Your task to perform on an android device: turn off priority inbox in the gmail app Image 0: 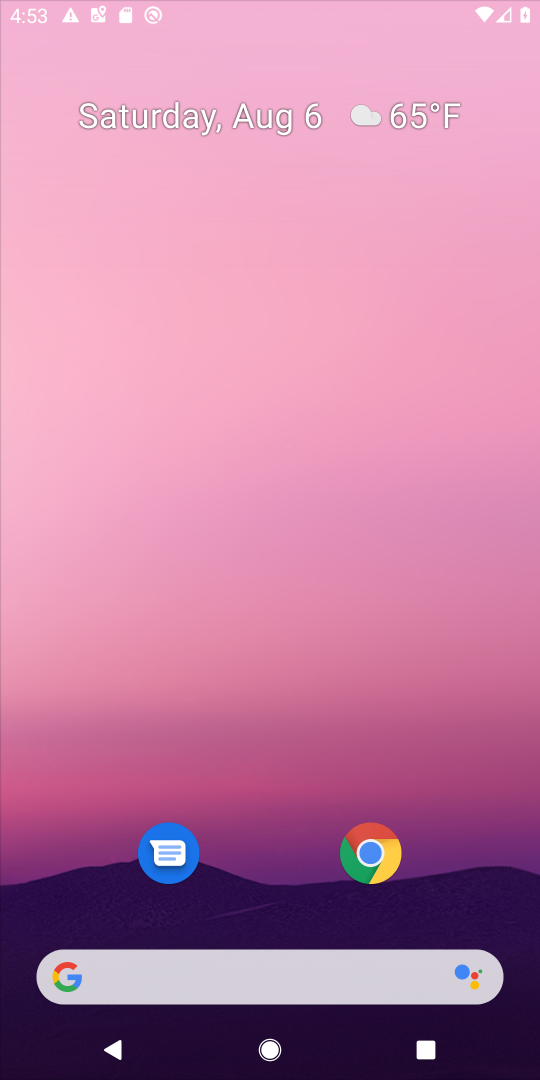
Step 0: press back button
Your task to perform on an android device: turn off priority inbox in the gmail app Image 1: 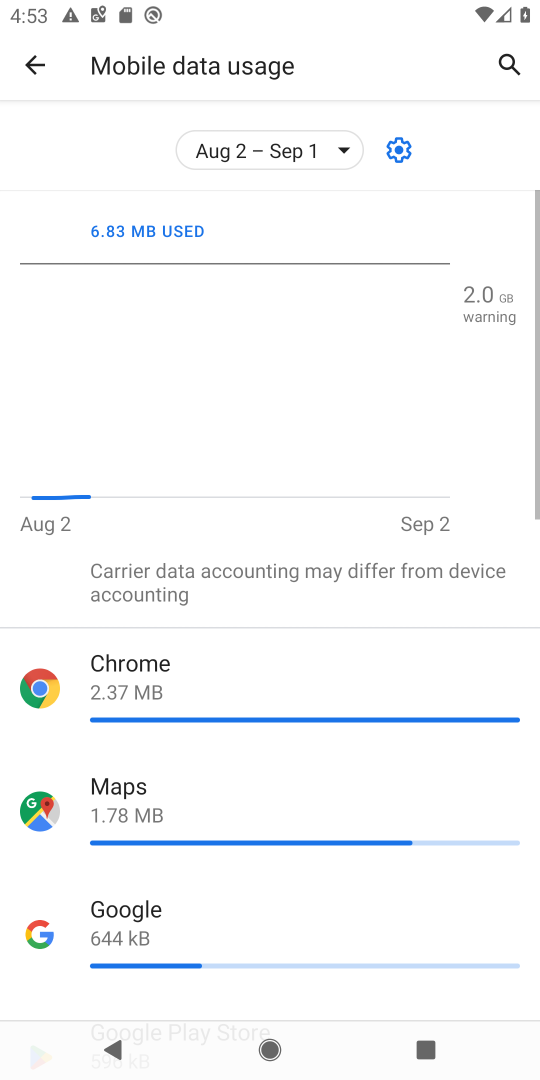
Step 1: press back button
Your task to perform on an android device: turn off priority inbox in the gmail app Image 2: 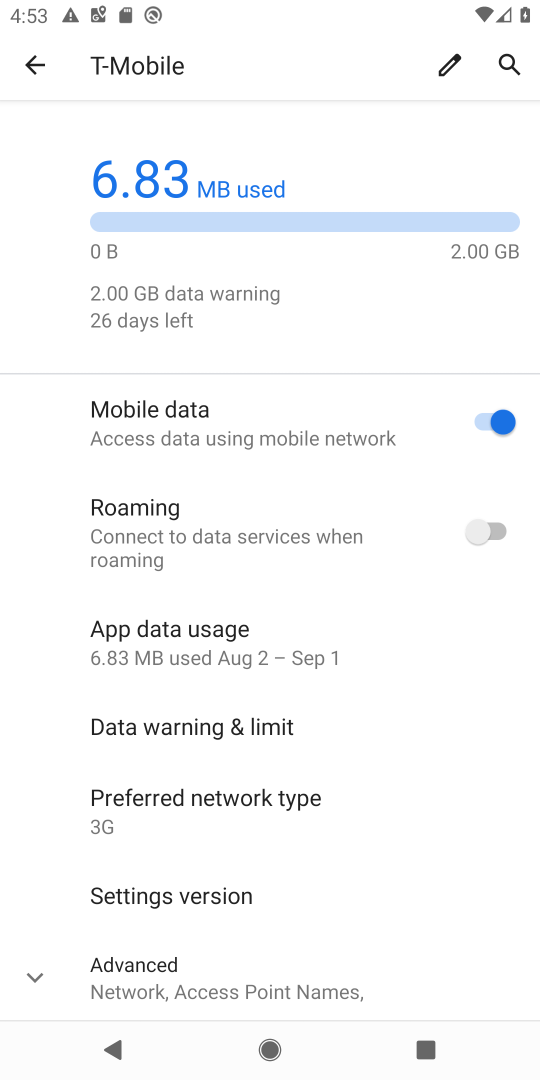
Step 2: press back button
Your task to perform on an android device: turn off priority inbox in the gmail app Image 3: 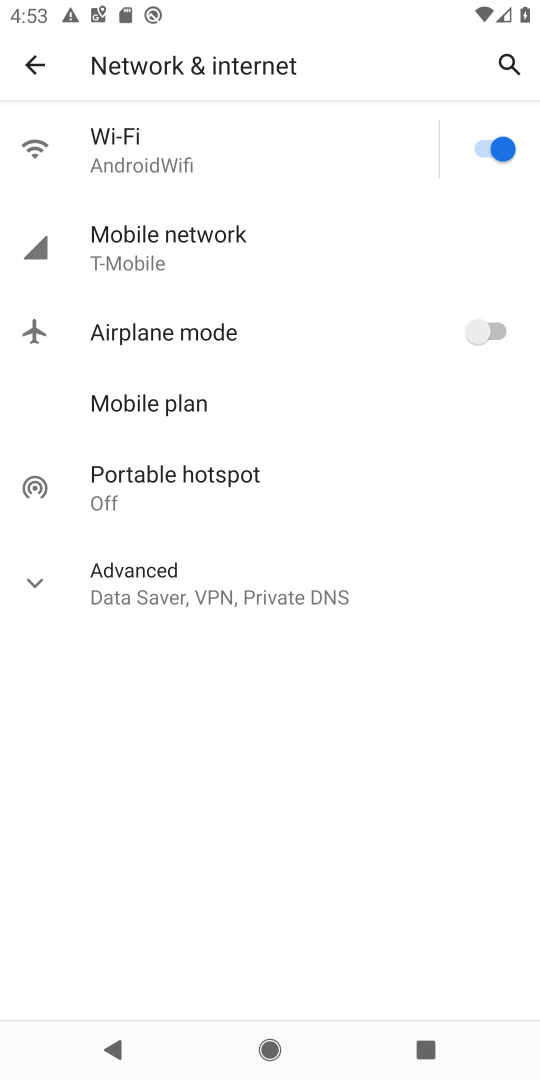
Step 3: press home button
Your task to perform on an android device: turn off priority inbox in the gmail app Image 4: 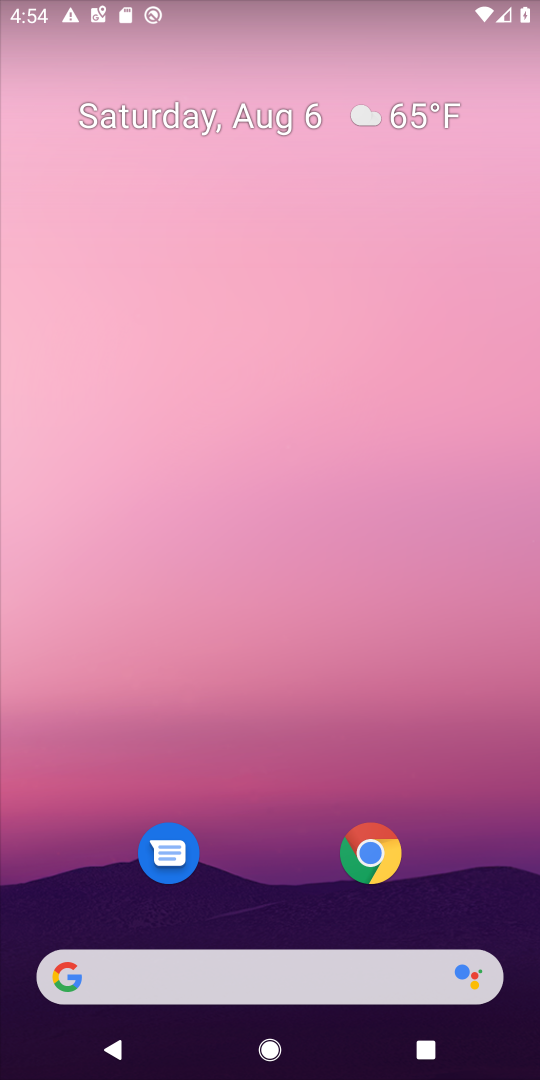
Step 4: drag from (261, 825) to (384, 29)
Your task to perform on an android device: turn off priority inbox in the gmail app Image 5: 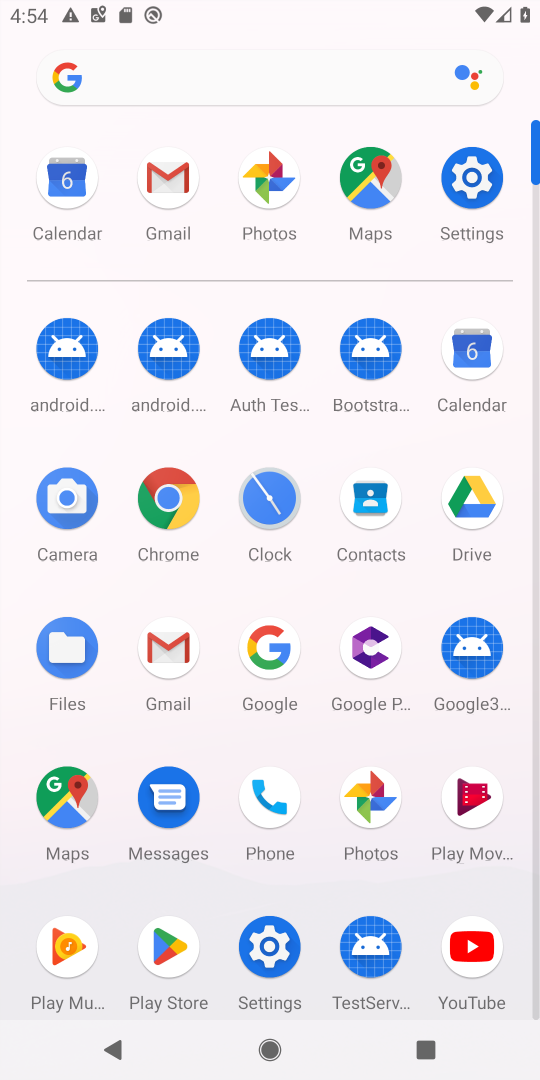
Step 5: click (156, 181)
Your task to perform on an android device: turn off priority inbox in the gmail app Image 6: 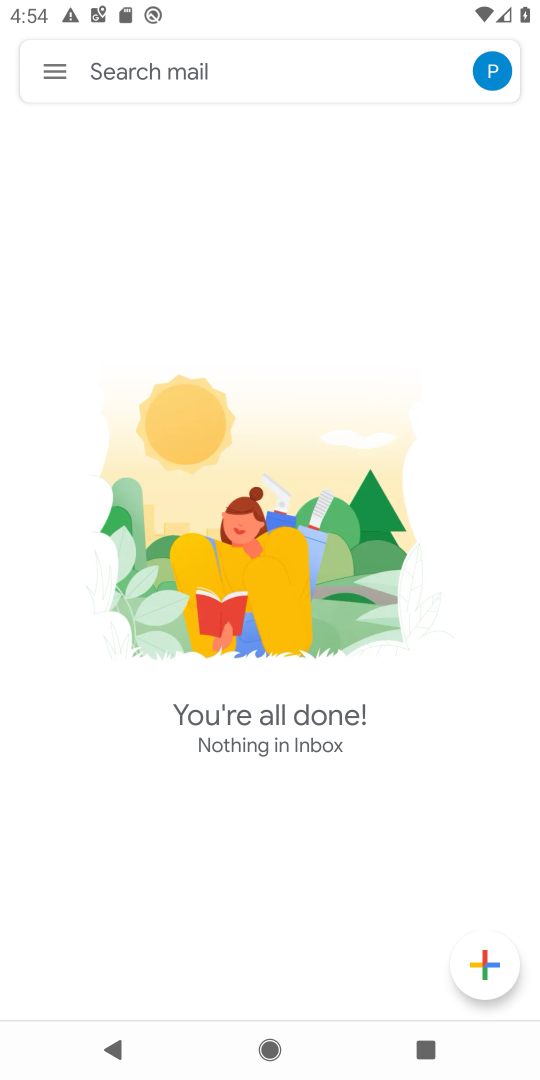
Step 6: click (57, 62)
Your task to perform on an android device: turn off priority inbox in the gmail app Image 7: 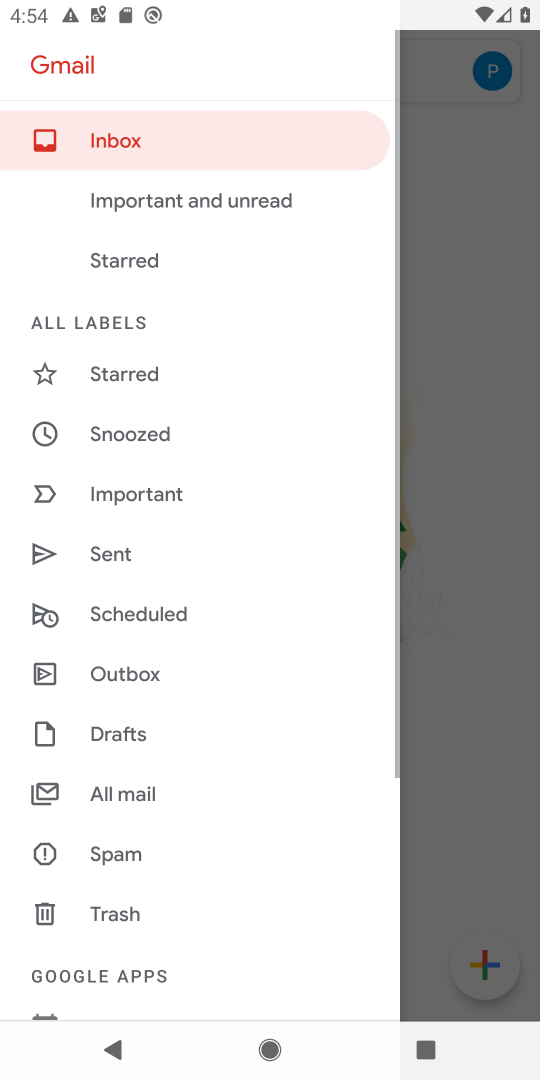
Step 7: drag from (162, 940) to (259, 216)
Your task to perform on an android device: turn off priority inbox in the gmail app Image 8: 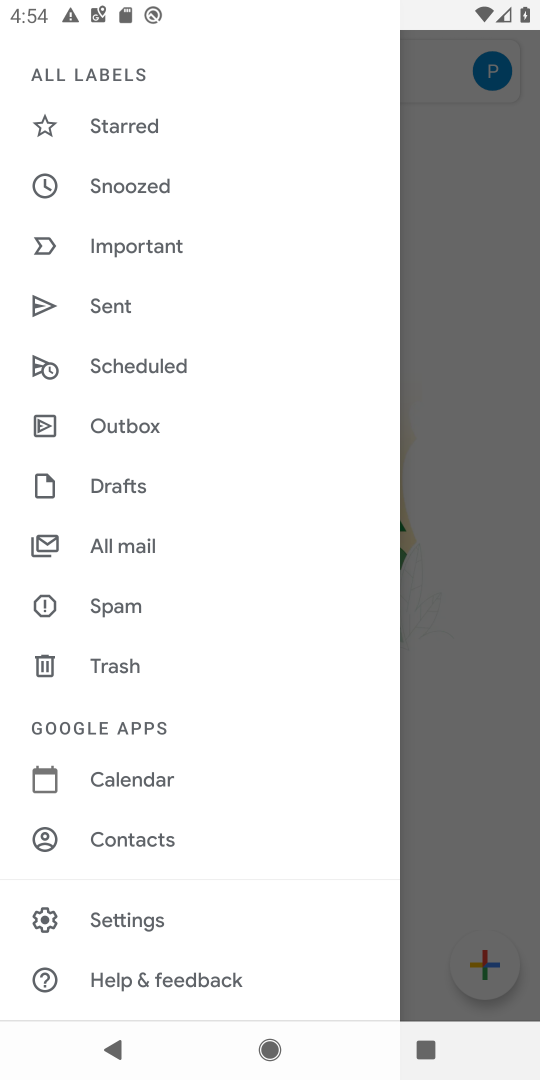
Step 8: click (126, 915)
Your task to perform on an android device: turn off priority inbox in the gmail app Image 9: 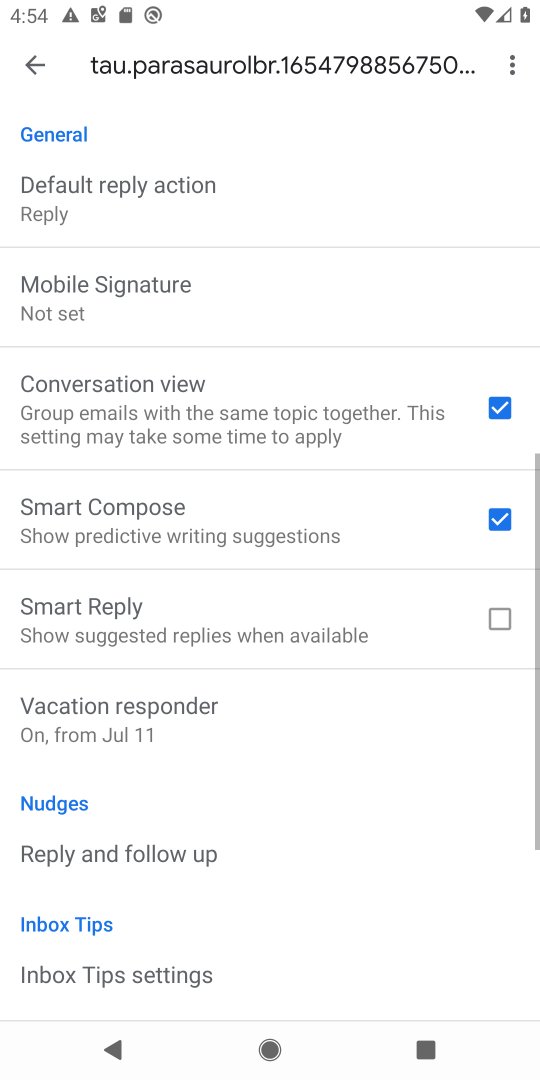
Step 9: drag from (190, 251) to (254, 943)
Your task to perform on an android device: turn off priority inbox in the gmail app Image 10: 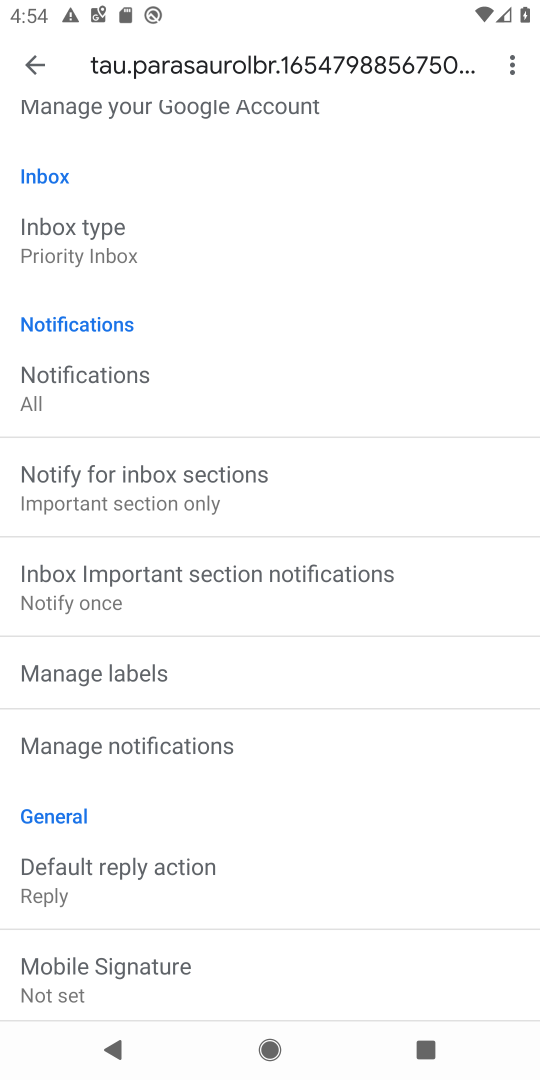
Step 10: click (128, 246)
Your task to perform on an android device: turn off priority inbox in the gmail app Image 11: 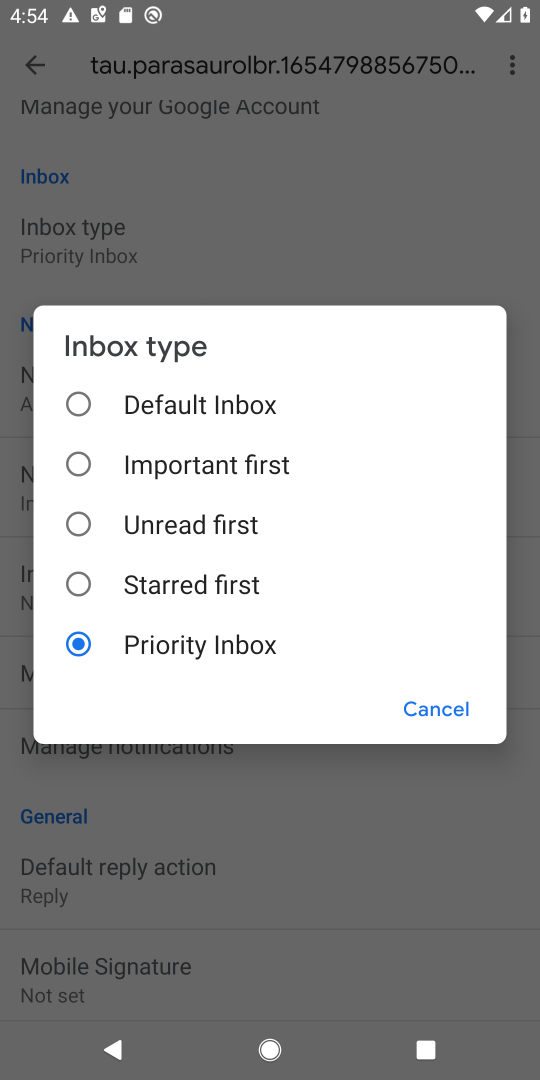
Step 11: click (72, 398)
Your task to perform on an android device: turn off priority inbox in the gmail app Image 12: 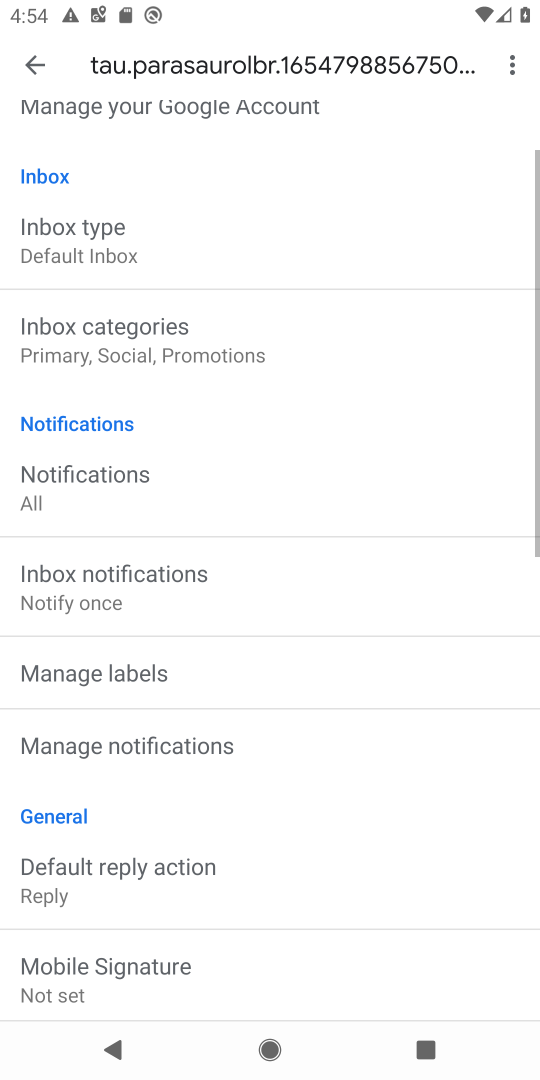
Step 12: task complete